Your task to perform on an android device: Go to accessibility settings Image 0: 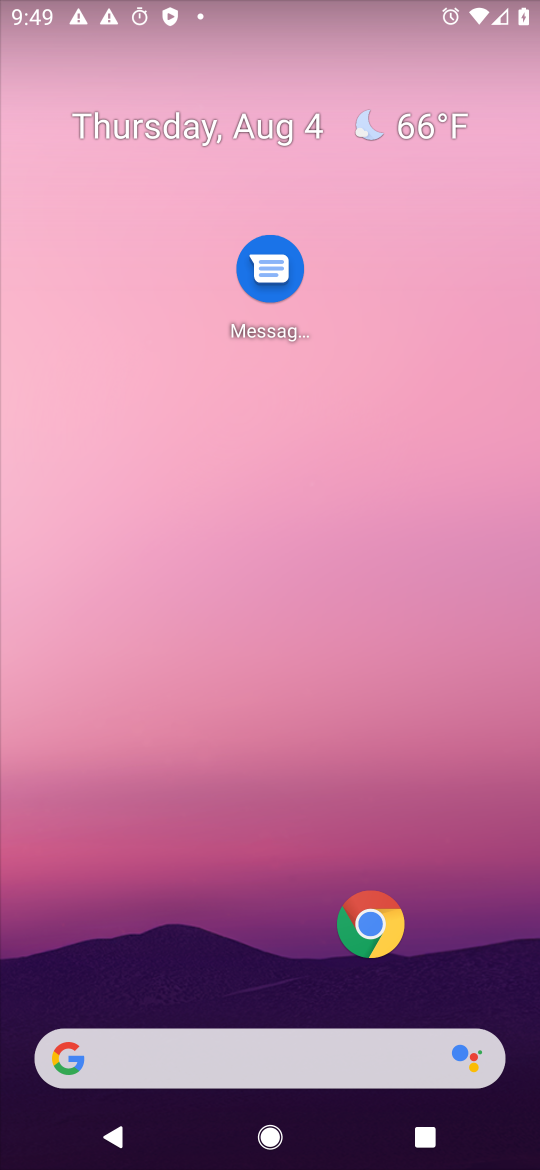
Step 0: drag from (310, 960) to (378, 666)
Your task to perform on an android device: Go to accessibility settings Image 1: 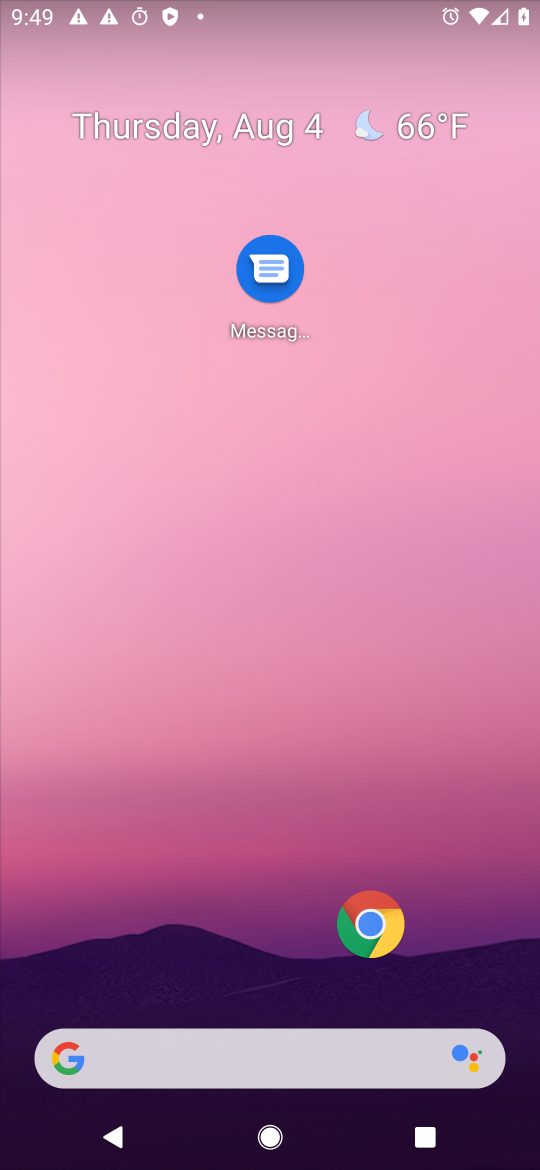
Step 1: drag from (250, 1025) to (352, 293)
Your task to perform on an android device: Go to accessibility settings Image 2: 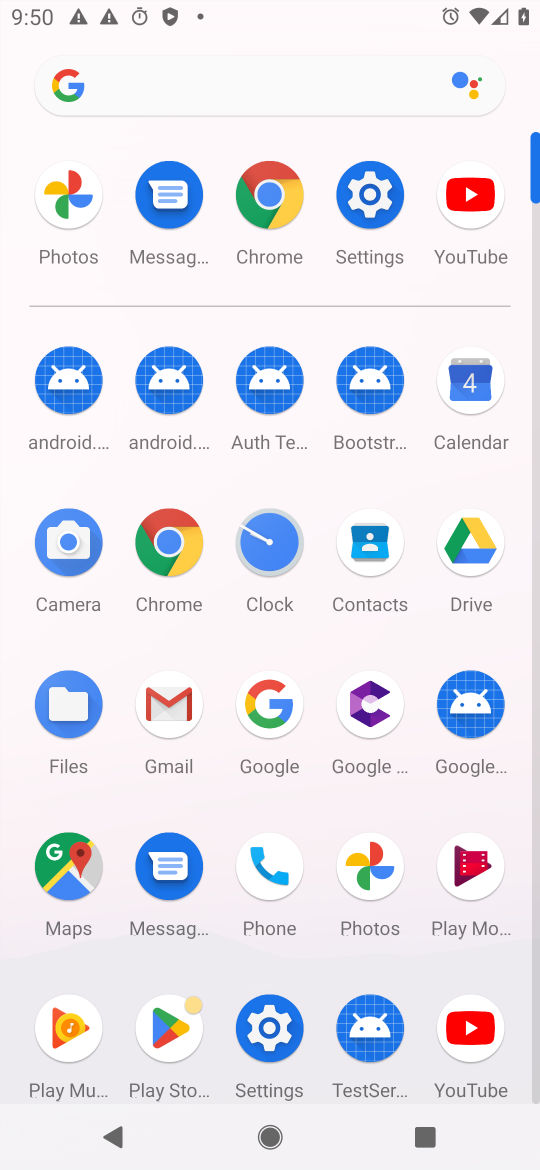
Step 2: drag from (306, 928) to (311, 288)
Your task to perform on an android device: Go to accessibility settings Image 3: 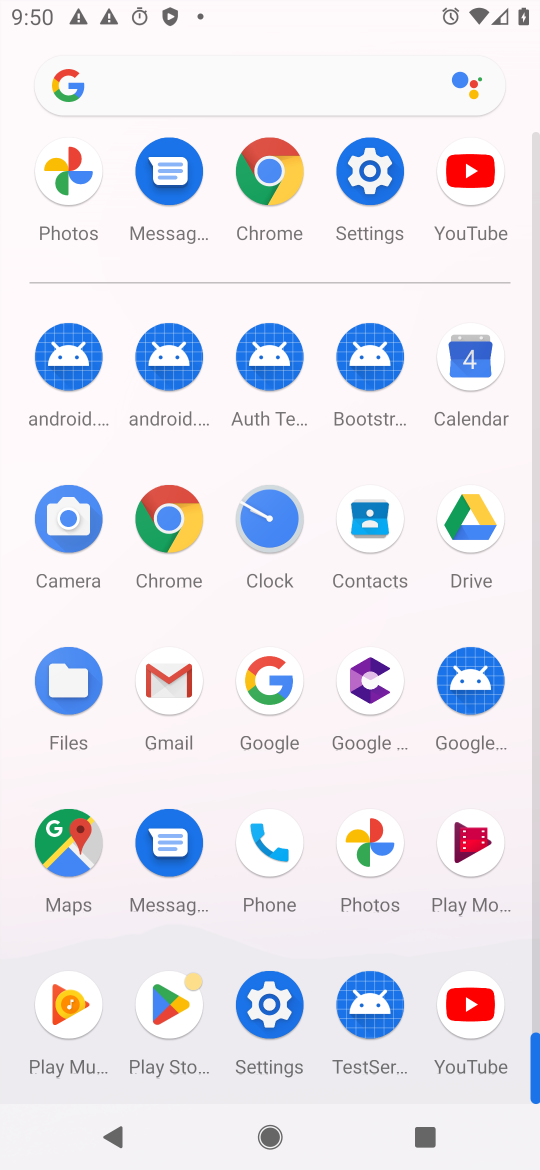
Step 3: click (269, 988)
Your task to perform on an android device: Go to accessibility settings Image 4: 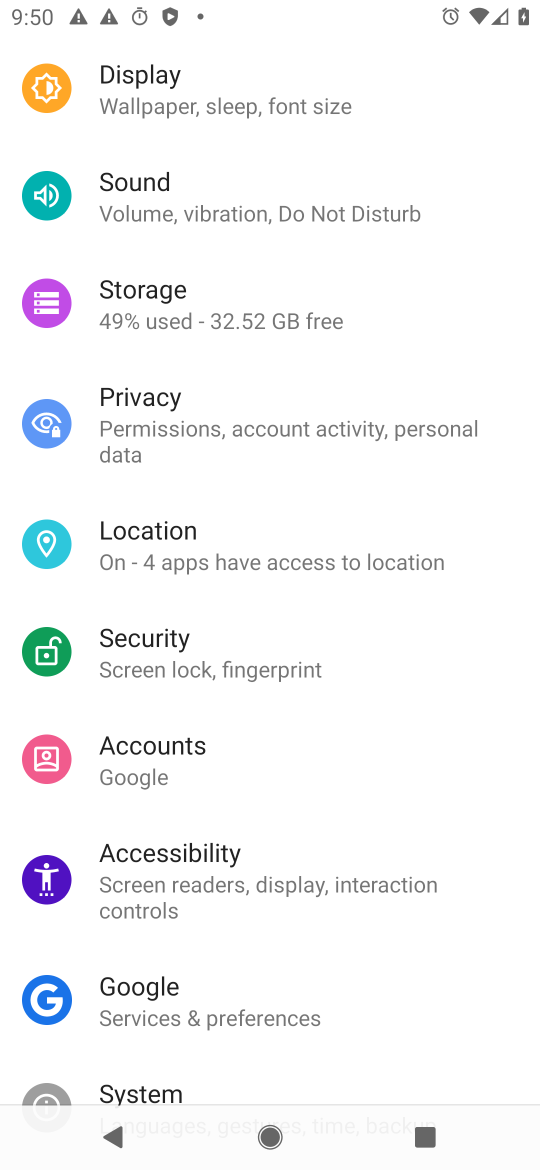
Step 4: drag from (304, 929) to (357, 221)
Your task to perform on an android device: Go to accessibility settings Image 5: 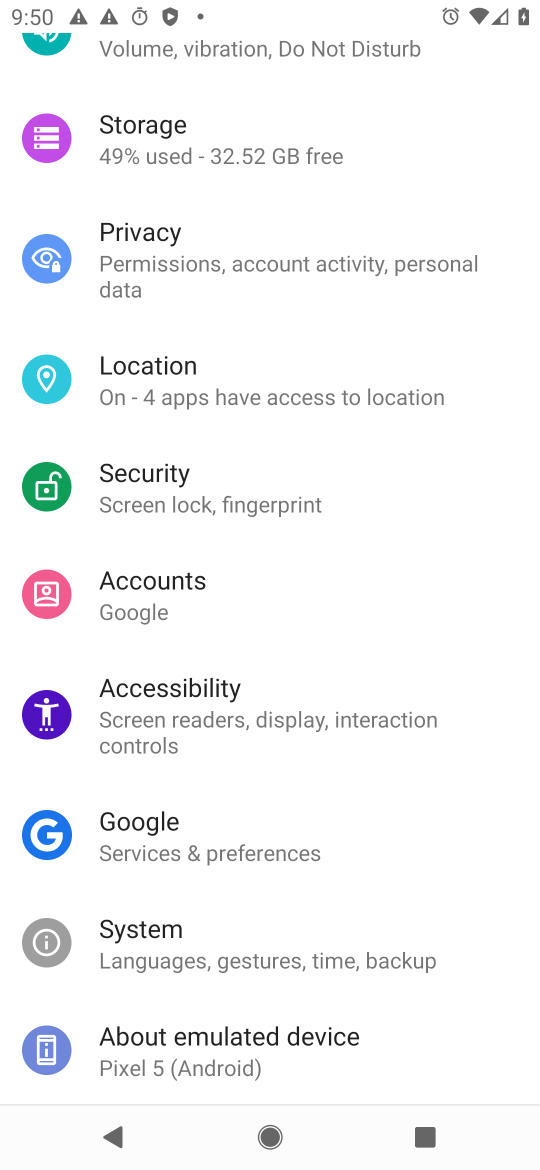
Step 5: click (218, 711)
Your task to perform on an android device: Go to accessibility settings Image 6: 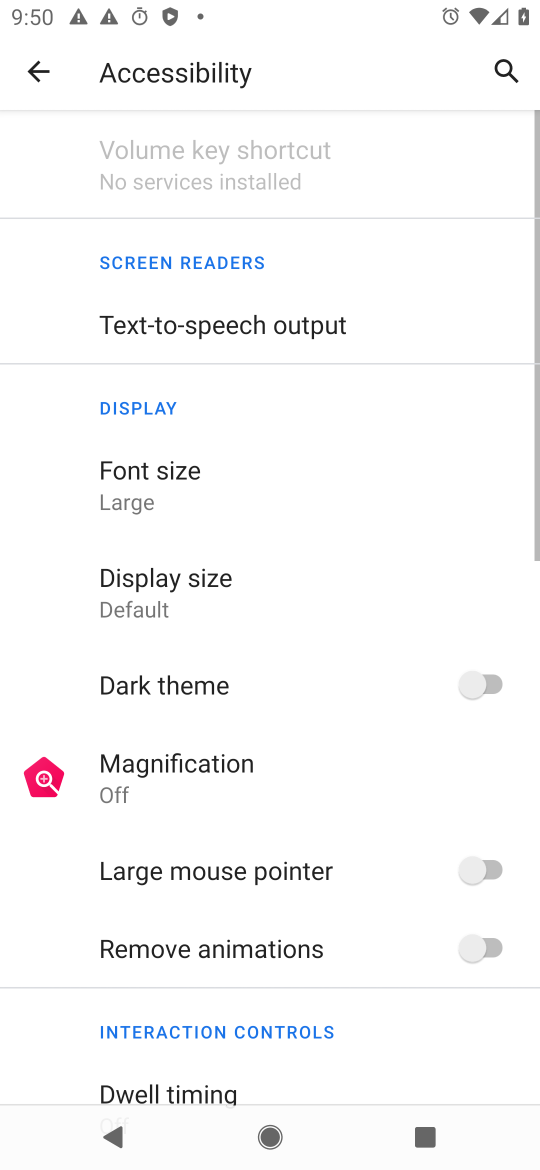
Step 6: task complete